Your task to perform on an android device: Go to network settings Image 0: 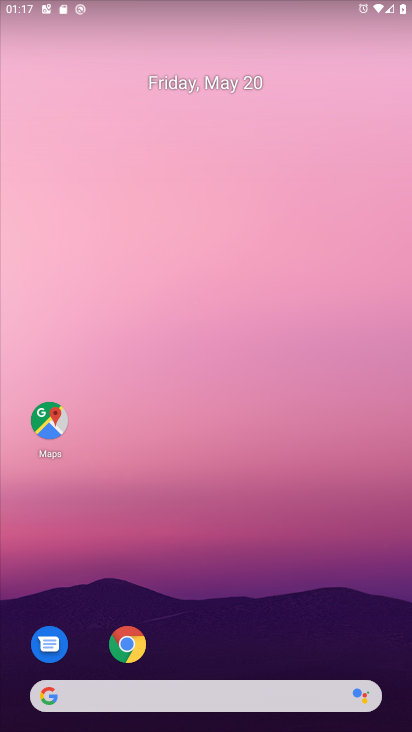
Step 0: drag from (173, 478) to (161, 170)
Your task to perform on an android device: Go to network settings Image 1: 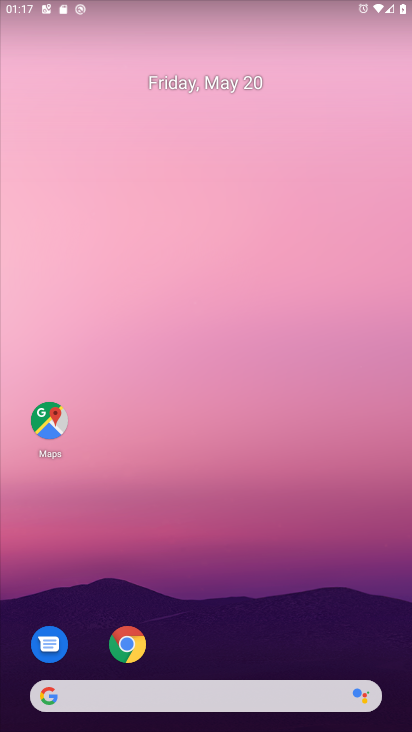
Step 1: drag from (213, 650) to (159, 187)
Your task to perform on an android device: Go to network settings Image 2: 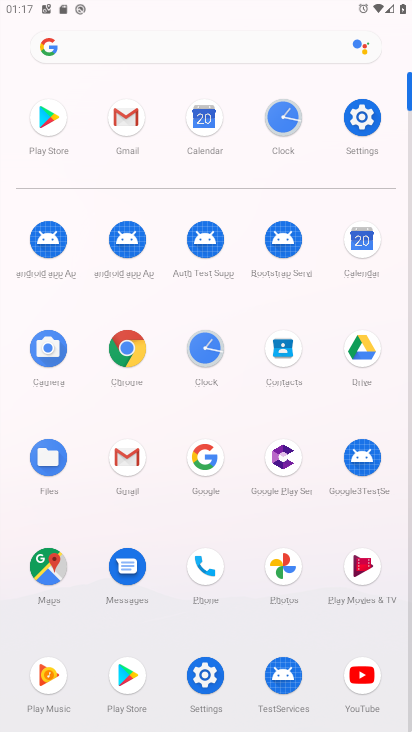
Step 2: click (358, 121)
Your task to perform on an android device: Go to network settings Image 3: 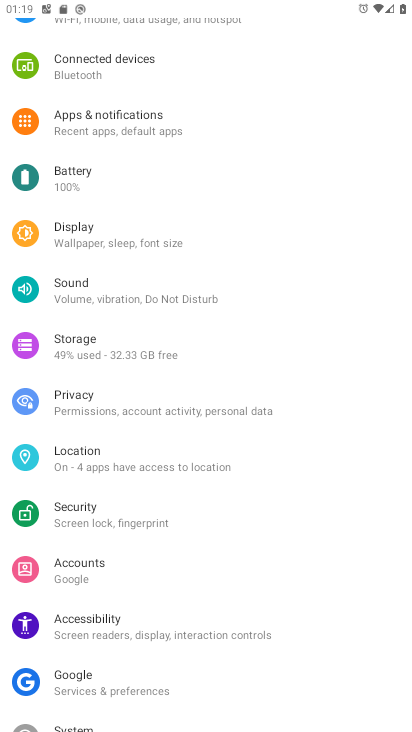
Step 3: drag from (178, 71) to (179, 556)
Your task to perform on an android device: Go to network settings Image 4: 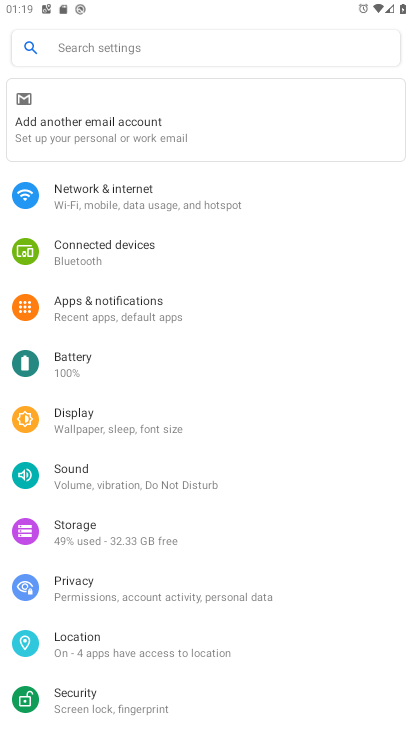
Step 4: click (160, 200)
Your task to perform on an android device: Go to network settings Image 5: 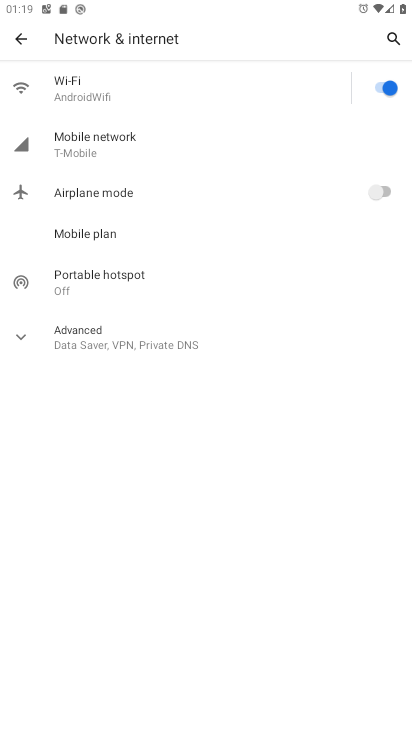
Step 5: click (75, 324)
Your task to perform on an android device: Go to network settings Image 6: 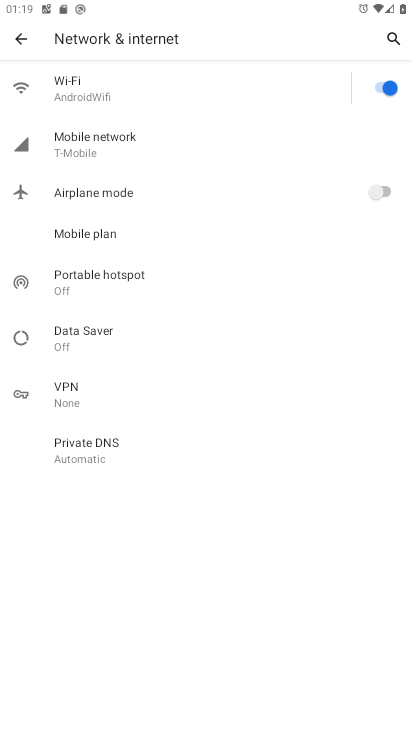
Step 6: task complete